Your task to perform on an android device: turn on priority inbox in the gmail app Image 0: 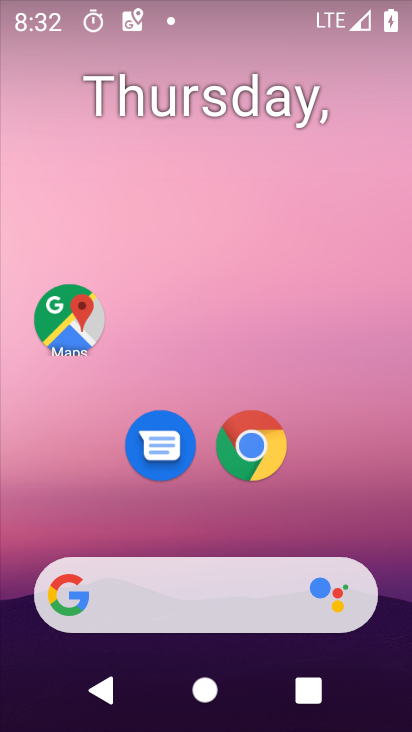
Step 0: drag from (202, 534) to (232, 79)
Your task to perform on an android device: turn on priority inbox in the gmail app Image 1: 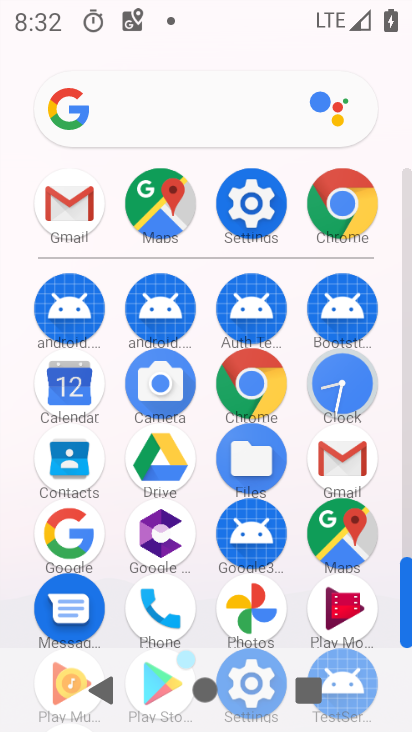
Step 1: click (334, 447)
Your task to perform on an android device: turn on priority inbox in the gmail app Image 2: 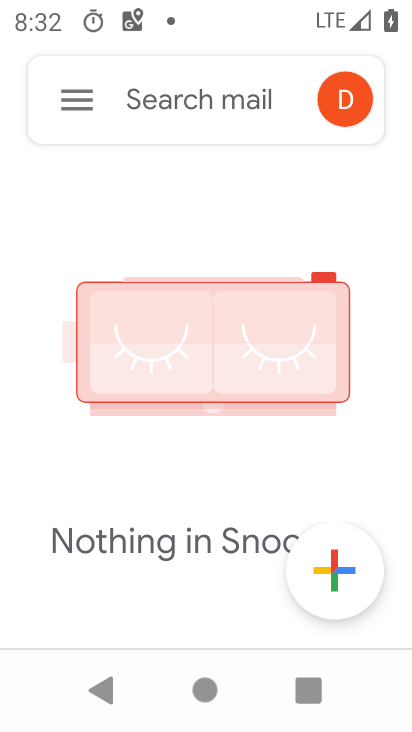
Step 2: click (73, 102)
Your task to perform on an android device: turn on priority inbox in the gmail app Image 3: 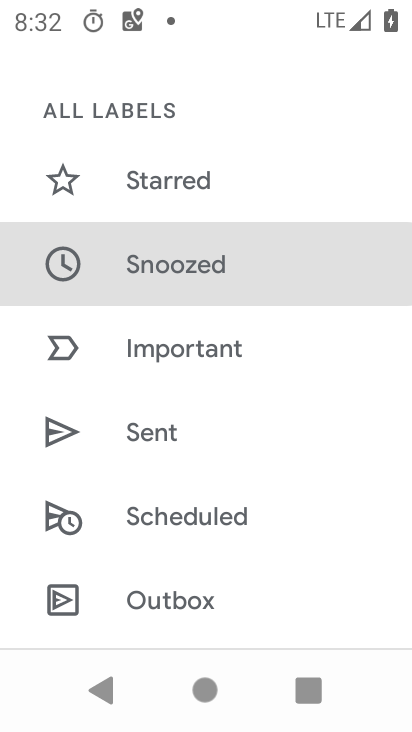
Step 3: drag from (236, 491) to (235, 210)
Your task to perform on an android device: turn on priority inbox in the gmail app Image 4: 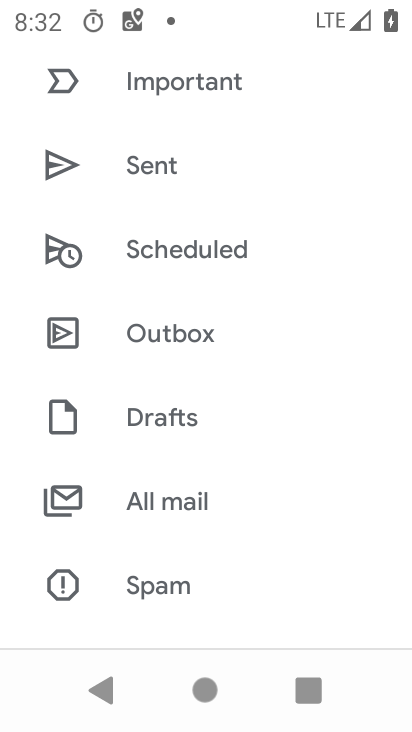
Step 4: drag from (208, 514) to (207, 287)
Your task to perform on an android device: turn on priority inbox in the gmail app Image 5: 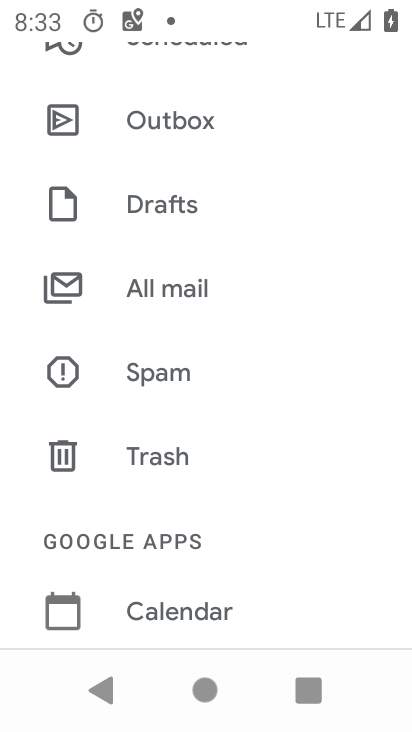
Step 5: drag from (226, 568) to (245, 210)
Your task to perform on an android device: turn on priority inbox in the gmail app Image 6: 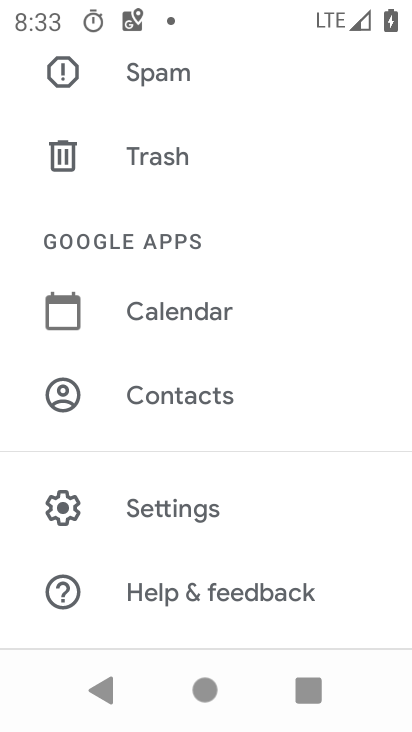
Step 6: drag from (233, 402) to (338, 85)
Your task to perform on an android device: turn on priority inbox in the gmail app Image 7: 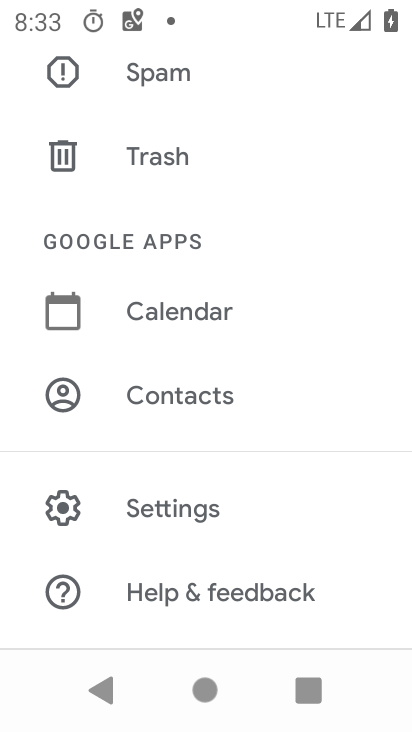
Step 7: click (180, 507)
Your task to perform on an android device: turn on priority inbox in the gmail app Image 8: 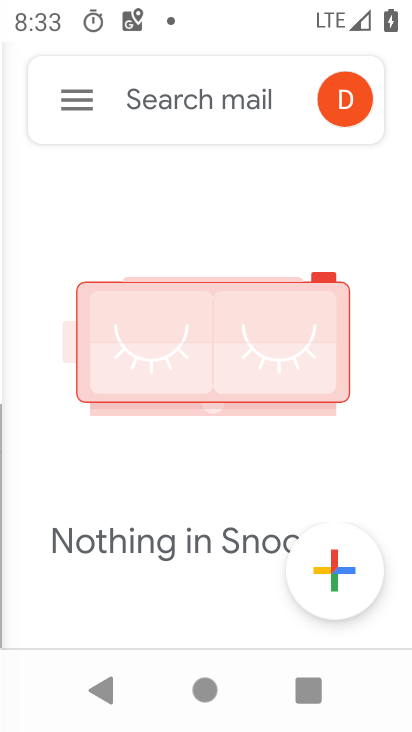
Step 8: click (180, 507)
Your task to perform on an android device: turn on priority inbox in the gmail app Image 9: 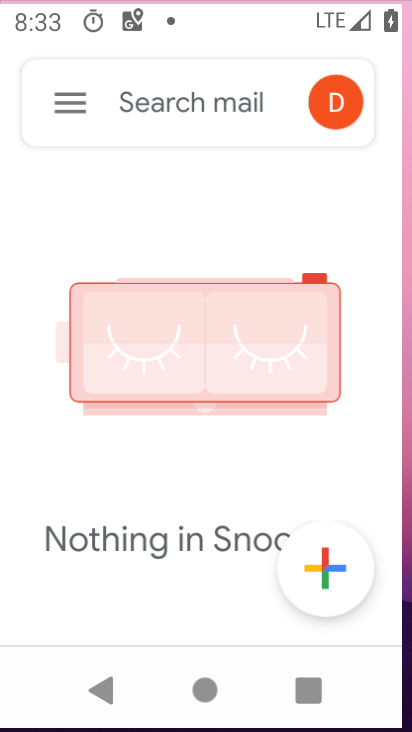
Step 9: click (180, 507)
Your task to perform on an android device: turn on priority inbox in the gmail app Image 10: 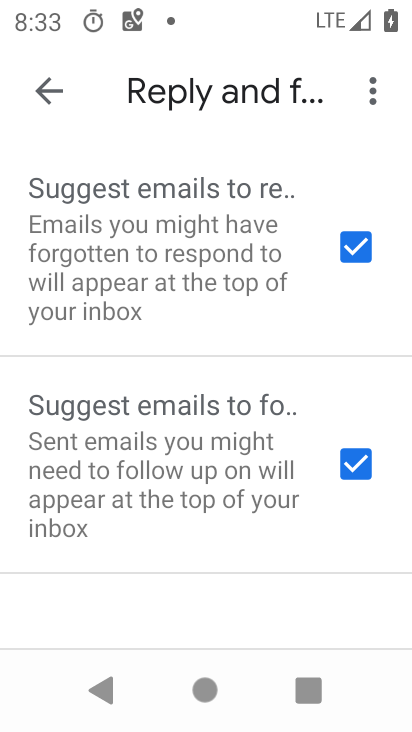
Step 10: drag from (201, 459) to (281, 30)
Your task to perform on an android device: turn on priority inbox in the gmail app Image 11: 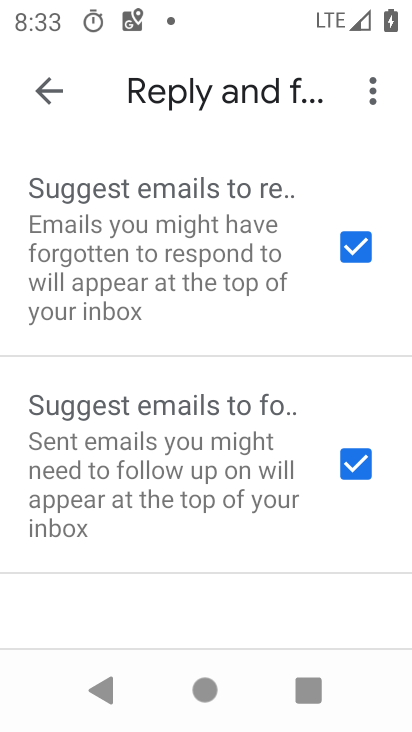
Step 11: drag from (222, 532) to (202, 264)
Your task to perform on an android device: turn on priority inbox in the gmail app Image 12: 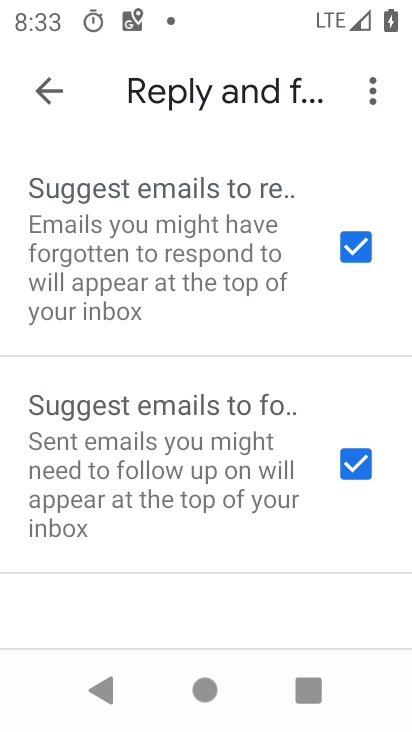
Step 12: drag from (216, 577) to (231, 307)
Your task to perform on an android device: turn on priority inbox in the gmail app Image 13: 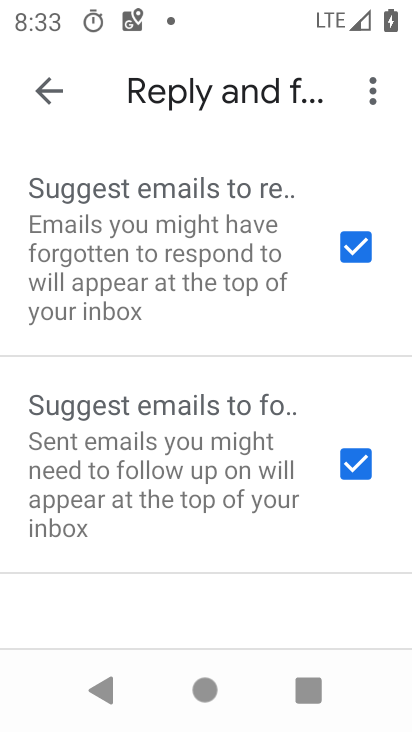
Step 13: drag from (220, 577) to (281, 258)
Your task to perform on an android device: turn on priority inbox in the gmail app Image 14: 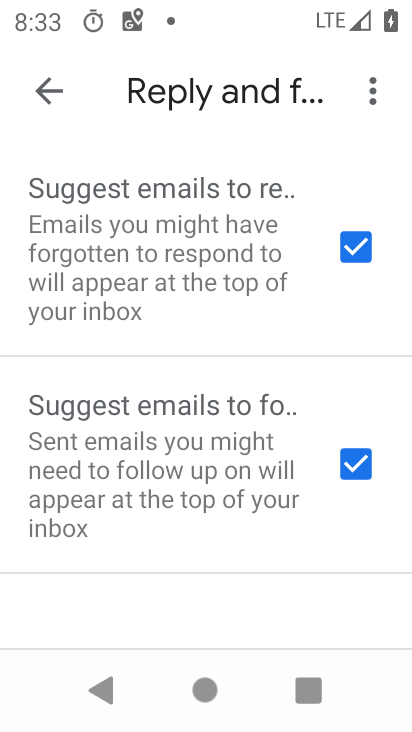
Step 14: drag from (216, 282) to (221, 618)
Your task to perform on an android device: turn on priority inbox in the gmail app Image 15: 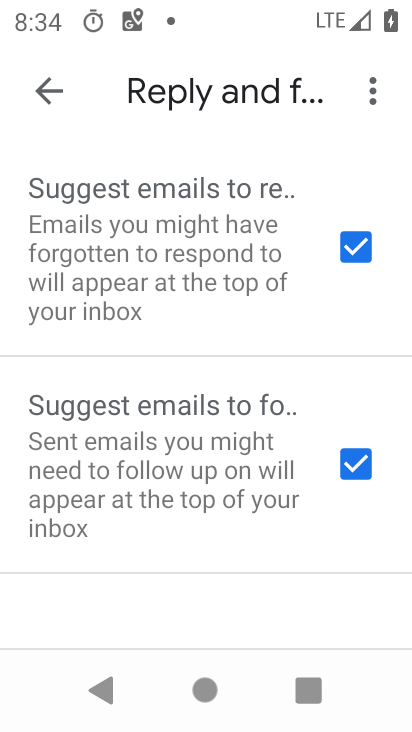
Step 15: click (64, 97)
Your task to perform on an android device: turn on priority inbox in the gmail app Image 16: 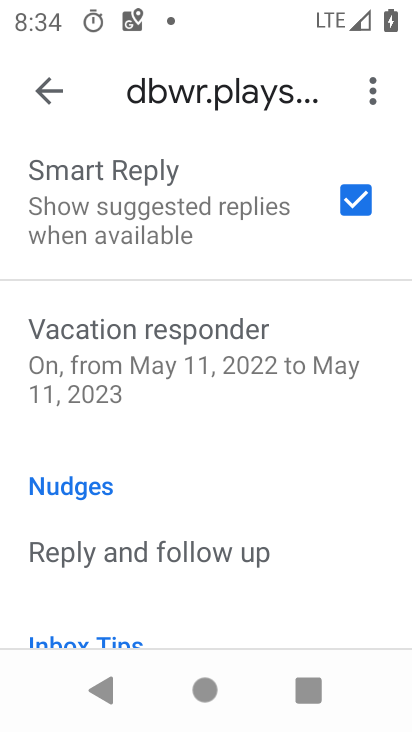
Step 16: drag from (219, 334) to (276, 716)
Your task to perform on an android device: turn on priority inbox in the gmail app Image 17: 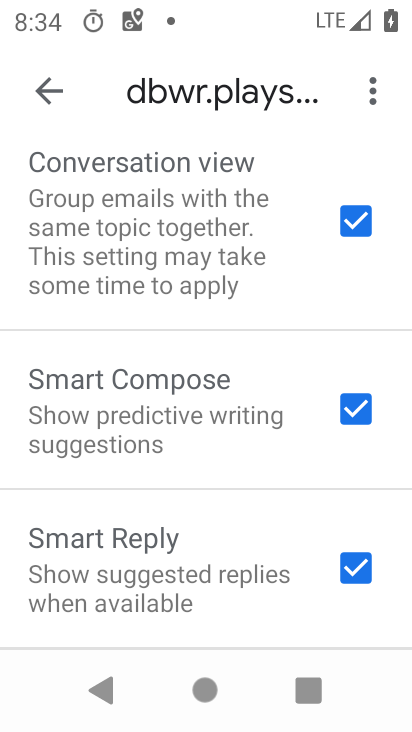
Step 17: drag from (218, 238) to (310, 695)
Your task to perform on an android device: turn on priority inbox in the gmail app Image 18: 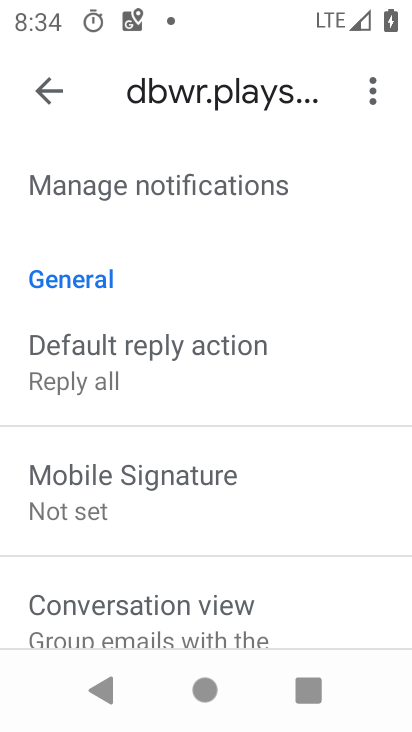
Step 18: drag from (232, 303) to (306, 657)
Your task to perform on an android device: turn on priority inbox in the gmail app Image 19: 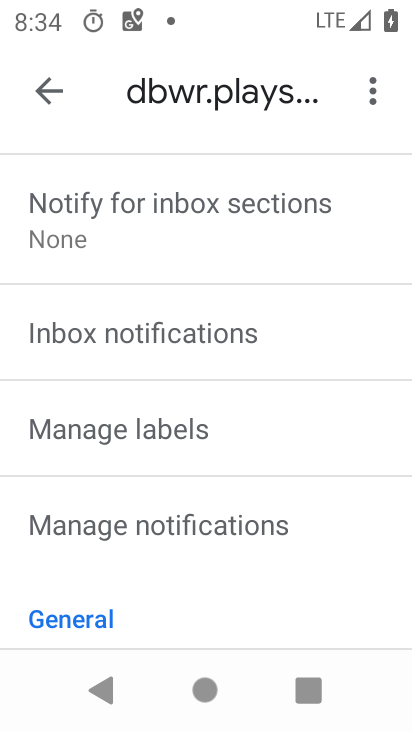
Step 19: drag from (176, 218) to (315, 638)
Your task to perform on an android device: turn on priority inbox in the gmail app Image 20: 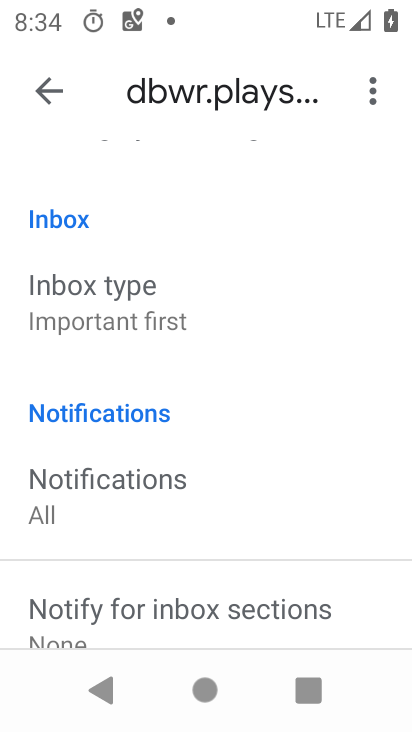
Step 20: drag from (199, 297) to (296, 570)
Your task to perform on an android device: turn on priority inbox in the gmail app Image 21: 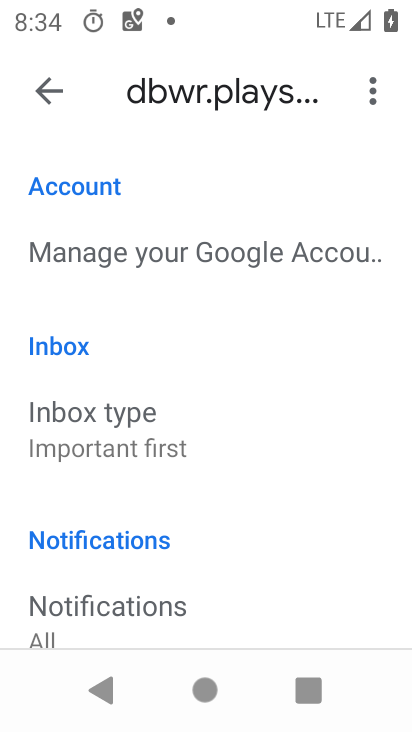
Step 21: click (171, 433)
Your task to perform on an android device: turn on priority inbox in the gmail app Image 22: 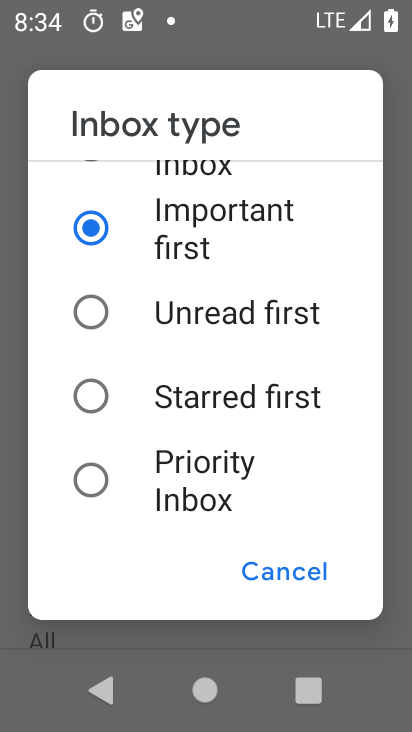
Step 22: click (162, 480)
Your task to perform on an android device: turn on priority inbox in the gmail app Image 23: 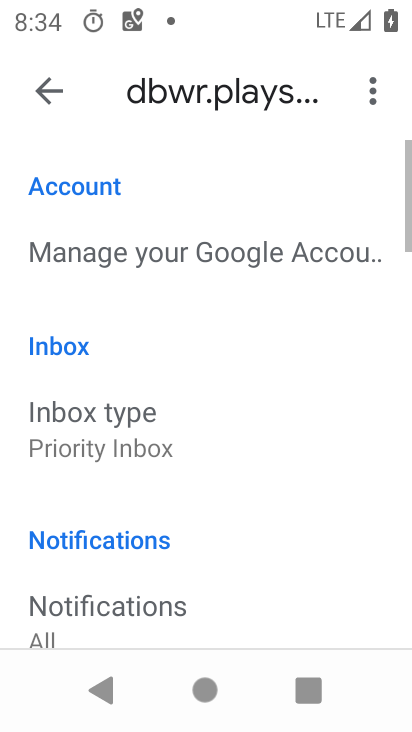
Step 23: task complete